Your task to perform on an android device: Open Google Chrome Image 0: 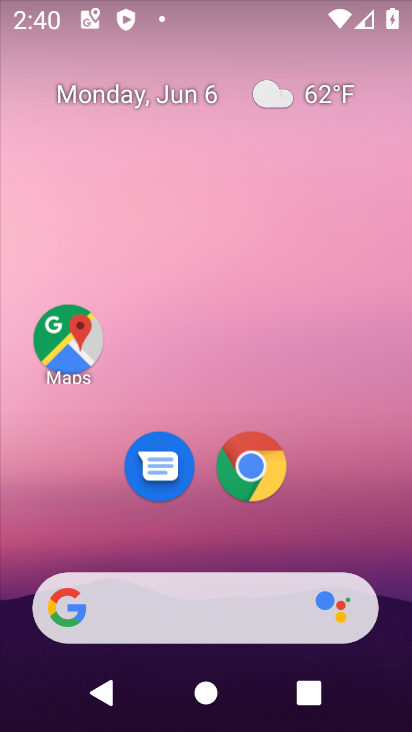
Step 0: press back button
Your task to perform on an android device: Open Google Chrome Image 1: 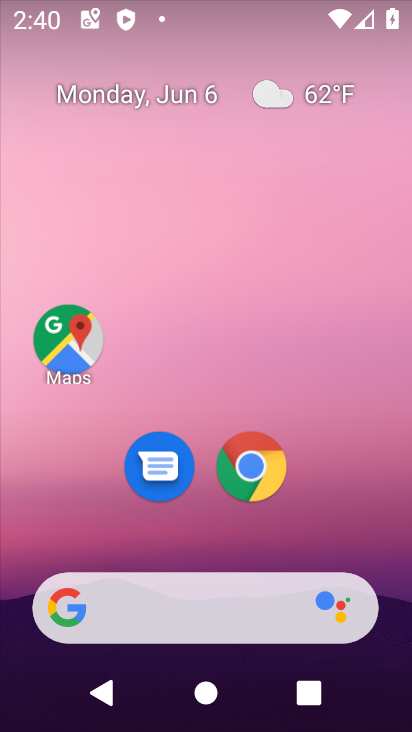
Step 1: press home button
Your task to perform on an android device: Open Google Chrome Image 2: 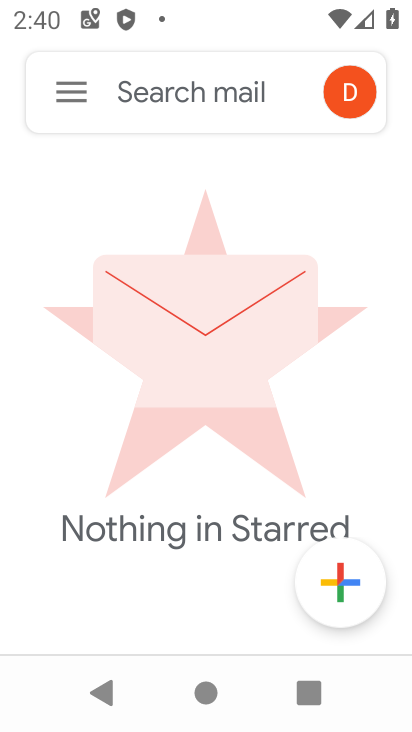
Step 2: click (165, 119)
Your task to perform on an android device: Open Google Chrome Image 3: 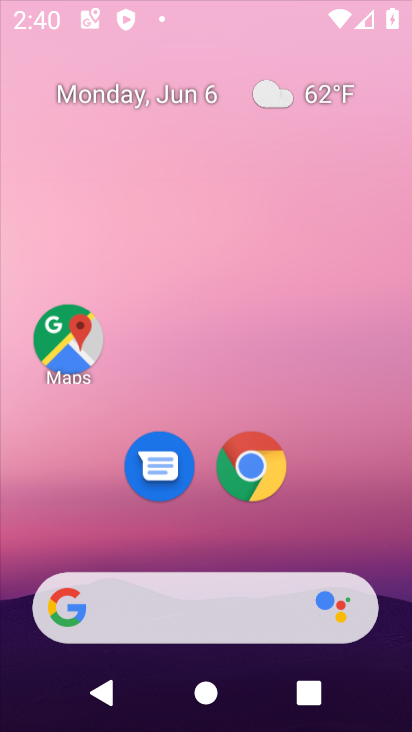
Step 3: drag from (279, 643) to (204, 112)
Your task to perform on an android device: Open Google Chrome Image 4: 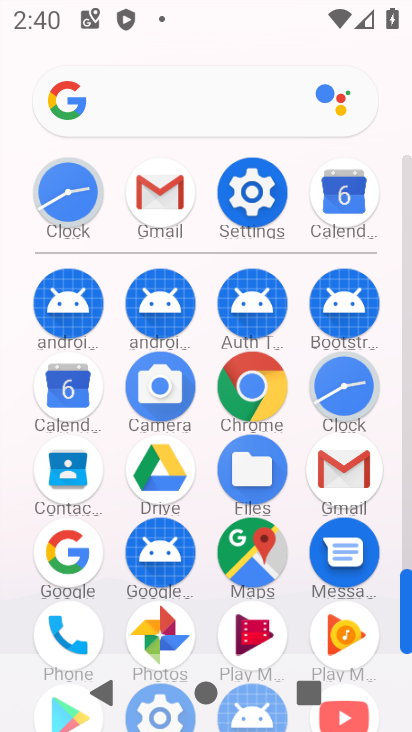
Step 4: drag from (247, 691) to (126, 139)
Your task to perform on an android device: Open Google Chrome Image 5: 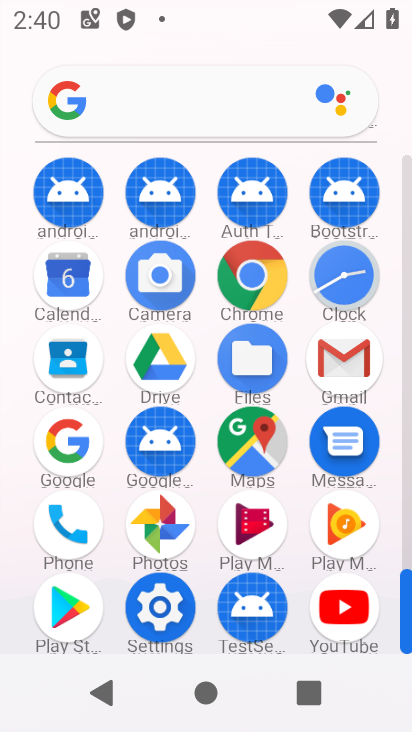
Step 5: click (253, 263)
Your task to perform on an android device: Open Google Chrome Image 6: 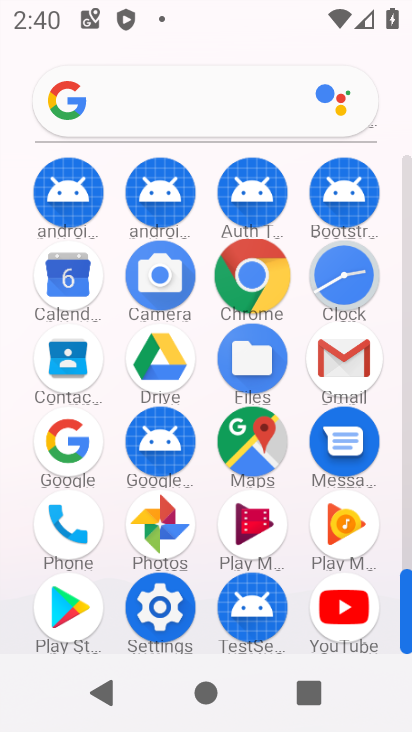
Step 6: click (259, 262)
Your task to perform on an android device: Open Google Chrome Image 7: 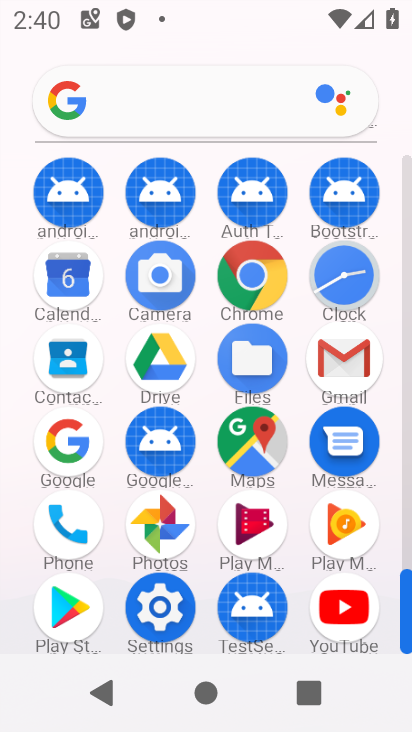
Step 7: click (252, 264)
Your task to perform on an android device: Open Google Chrome Image 8: 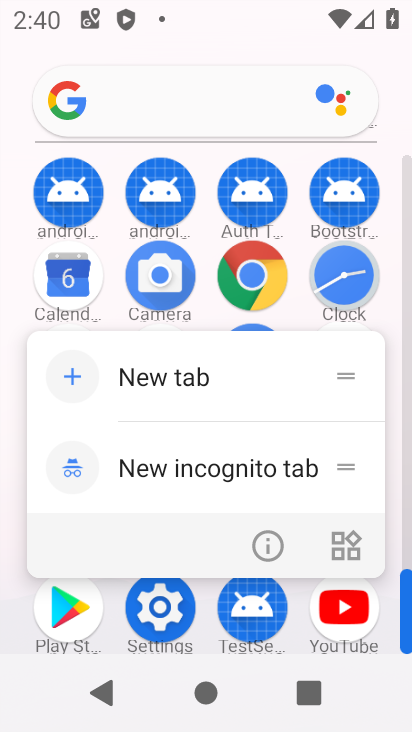
Step 8: click (259, 287)
Your task to perform on an android device: Open Google Chrome Image 9: 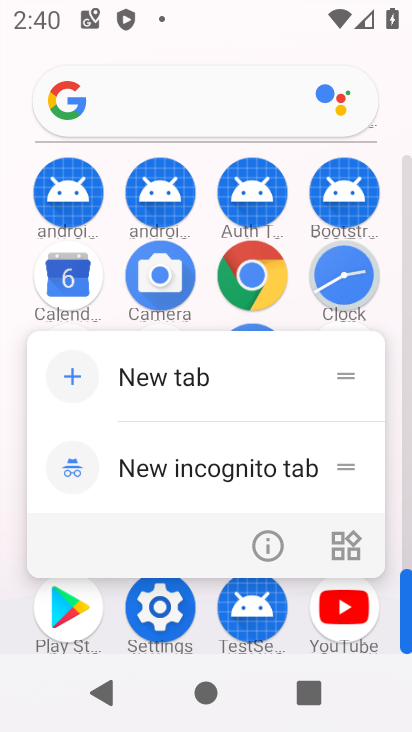
Step 9: click (254, 279)
Your task to perform on an android device: Open Google Chrome Image 10: 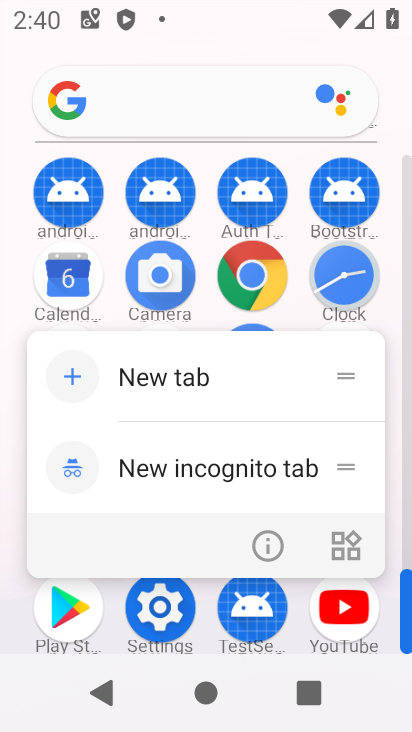
Step 10: click (263, 257)
Your task to perform on an android device: Open Google Chrome Image 11: 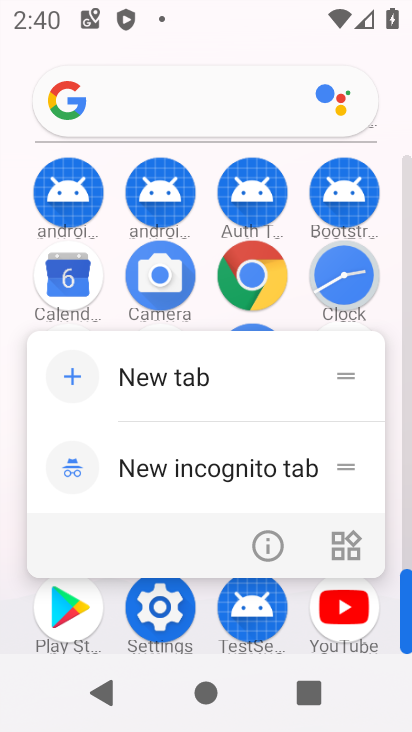
Step 11: click (199, 354)
Your task to perform on an android device: Open Google Chrome Image 12: 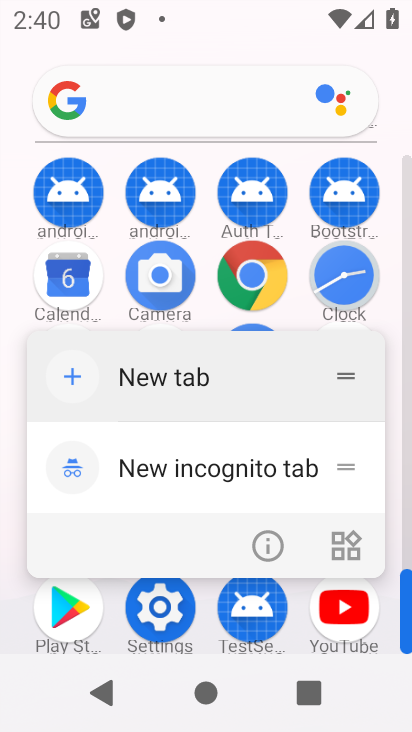
Step 12: click (197, 367)
Your task to perform on an android device: Open Google Chrome Image 13: 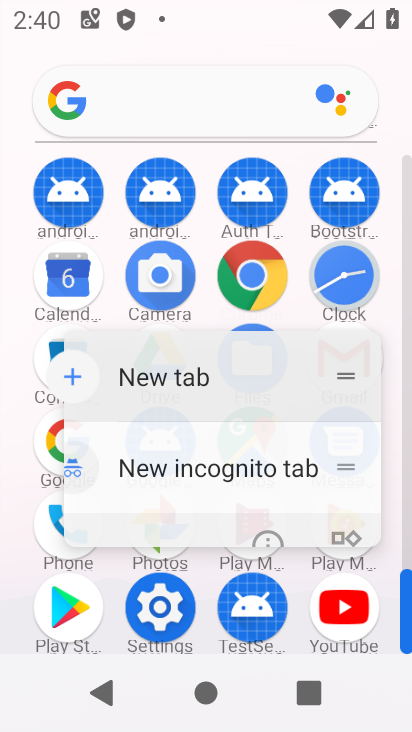
Step 13: click (193, 378)
Your task to perform on an android device: Open Google Chrome Image 14: 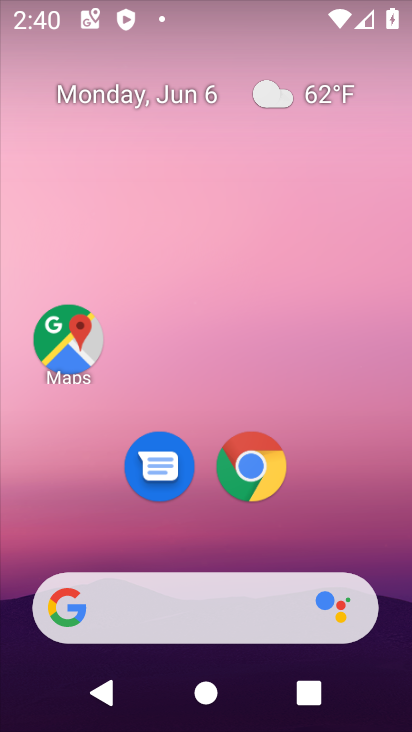
Step 14: click (265, 464)
Your task to perform on an android device: Open Google Chrome Image 15: 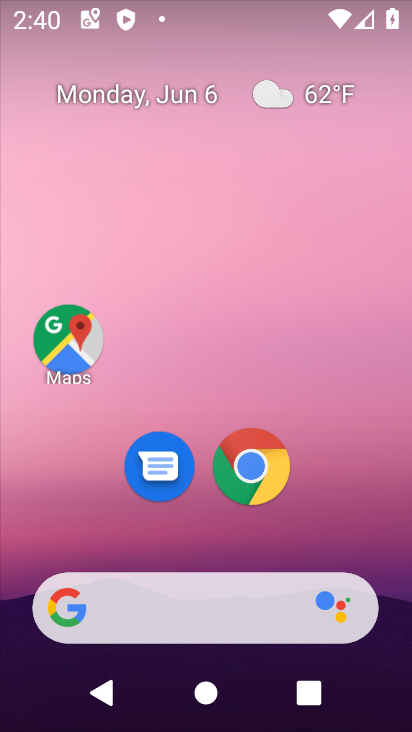
Step 15: click (263, 462)
Your task to perform on an android device: Open Google Chrome Image 16: 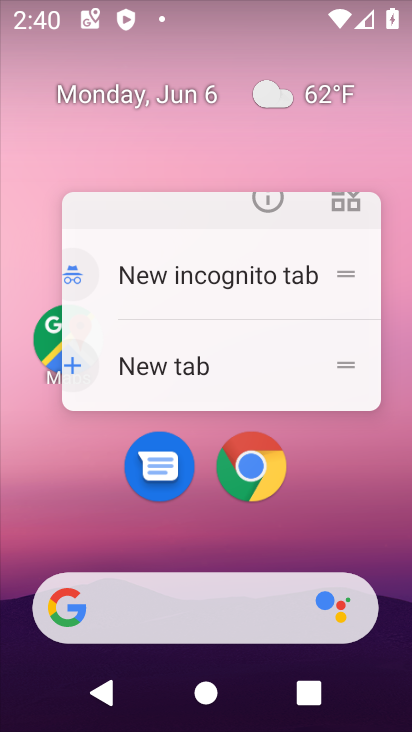
Step 16: drag from (261, 456) to (236, 419)
Your task to perform on an android device: Open Google Chrome Image 17: 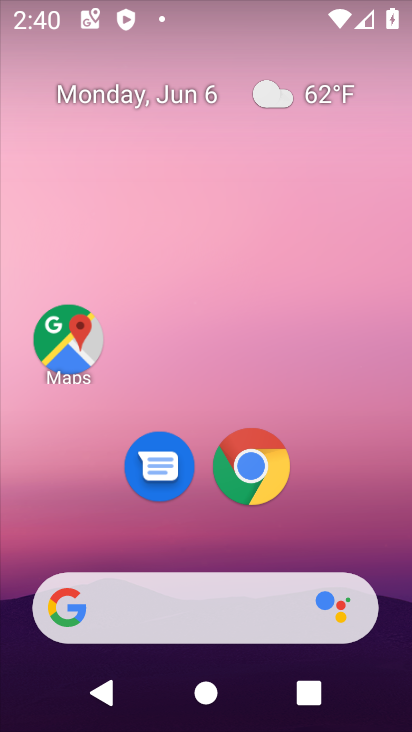
Step 17: click (235, 409)
Your task to perform on an android device: Open Google Chrome Image 18: 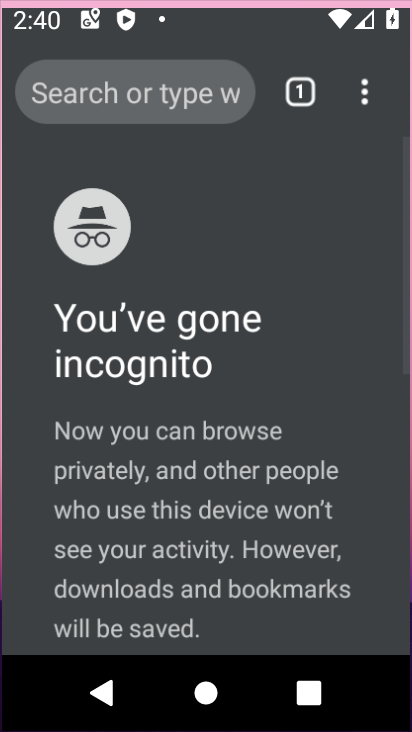
Step 18: click (245, 359)
Your task to perform on an android device: Open Google Chrome Image 19: 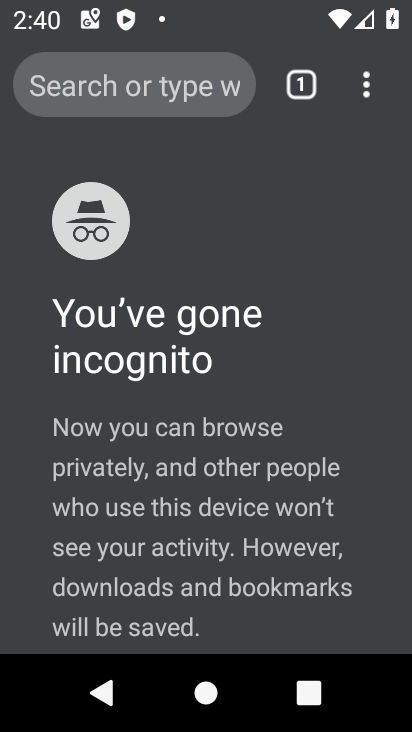
Step 19: click (246, 350)
Your task to perform on an android device: Open Google Chrome Image 20: 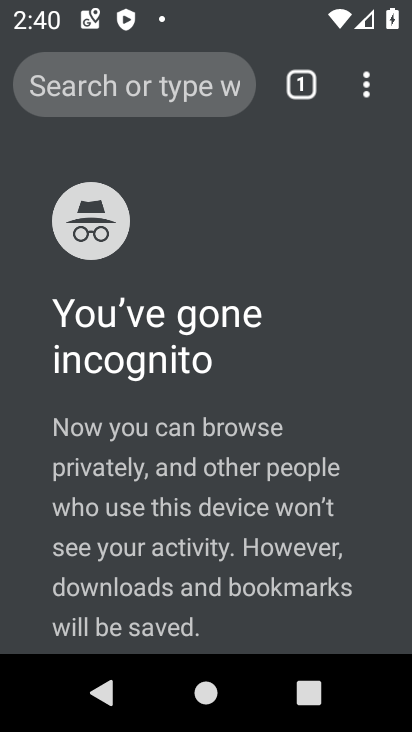
Step 20: click (250, 339)
Your task to perform on an android device: Open Google Chrome Image 21: 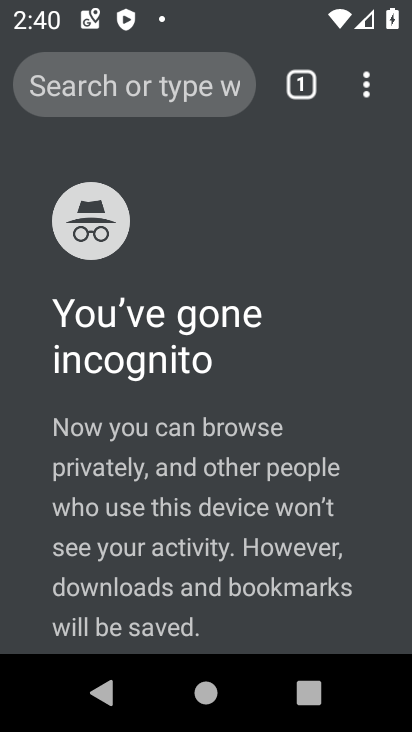
Step 21: click (256, 330)
Your task to perform on an android device: Open Google Chrome Image 22: 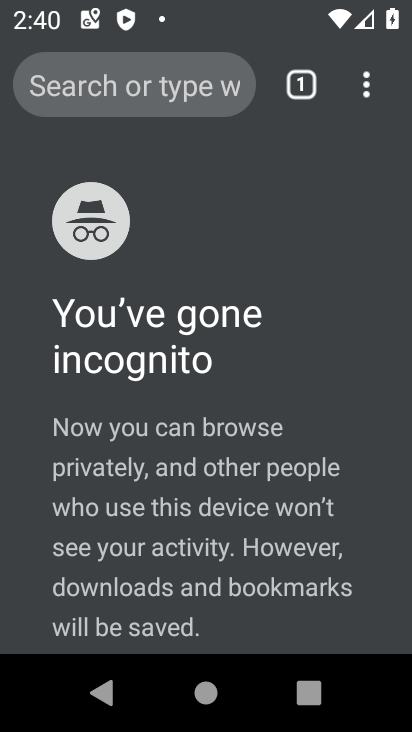
Step 22: click (257, 329)
Your task to perform on an android device: Open Google Chrome Image 23: 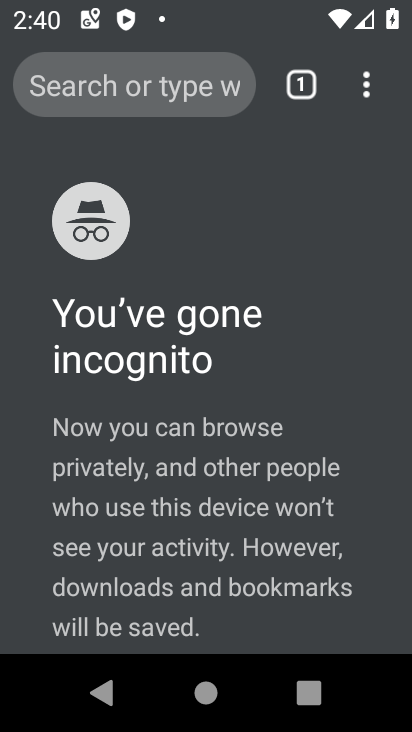
Step 23: click (257, 329)
Your task to perform on an android device: Open Google Chrome Image 24: 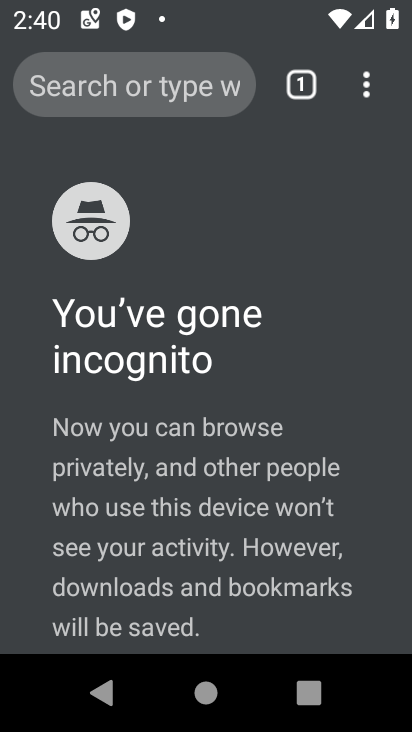
Step 24: click (259, 325)
Your task to perform on an android device: Open Google Chrome Image 25: 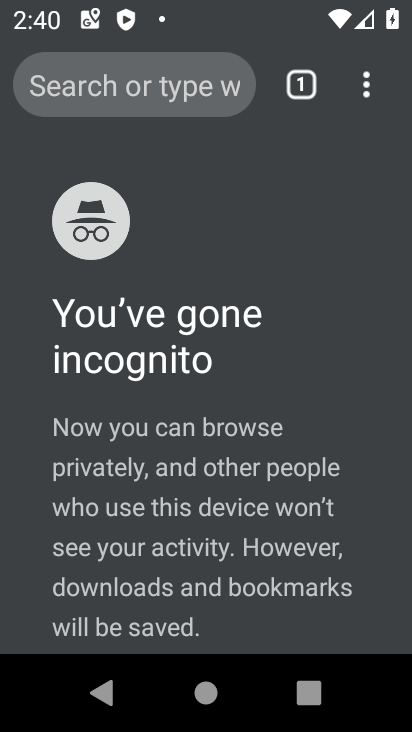
Step 25: click (260, 325)
Your task to perform on an android device: Open Google Chrome Image 26: 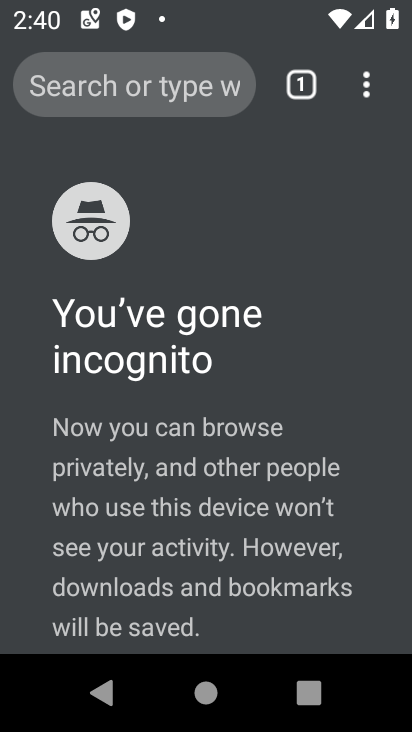
Step 26: drag from (370, 90) to (84, 170)
Your task to perform on an android device: Open Google Chrome Image 27: 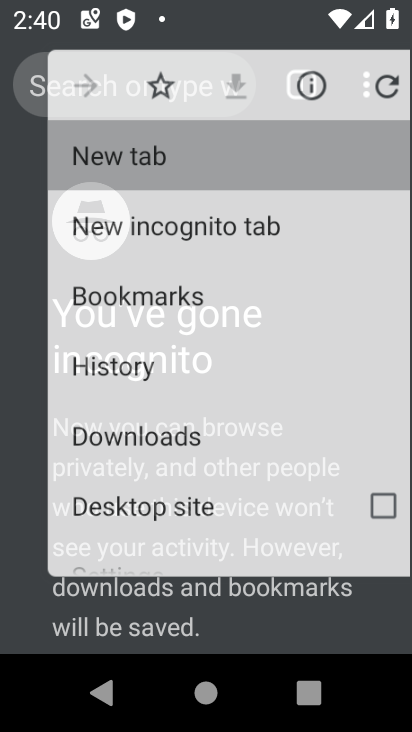
Step 27: click (86, 165)
Your task to perform on an android device: Open Google Chrome Image 28: 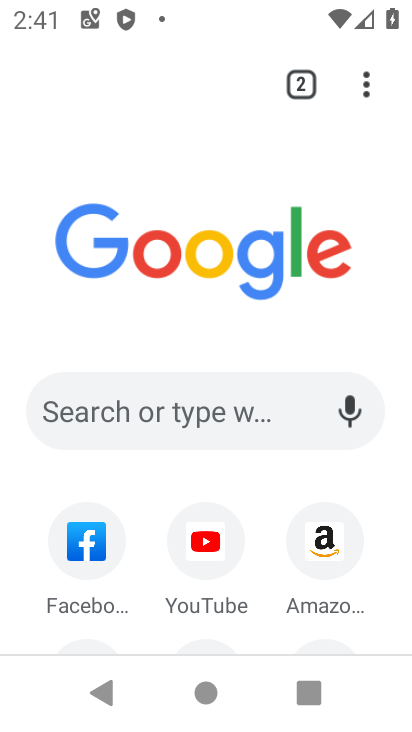
Step 28: task complete